Your task to perform on an android device: change the clock style Image 0: 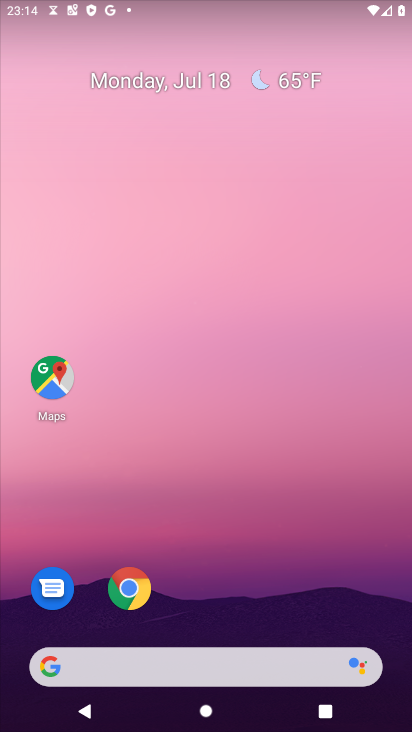
Step 0: drag from (209, 670) to (237, 201)
Your task to perform on an android device: change the clock style Image 1: 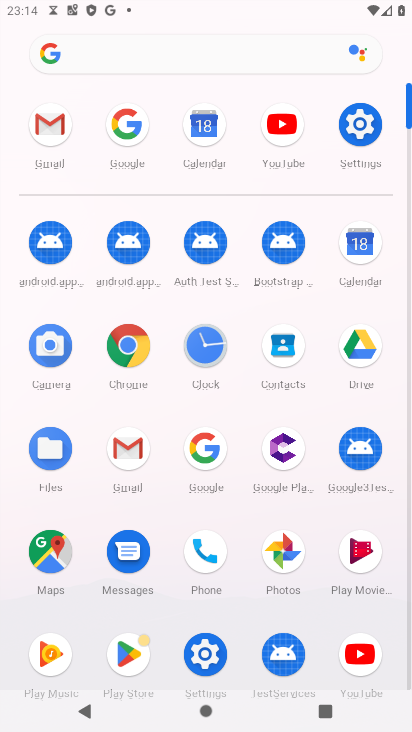
Step 1: click (205, 345)
Your task to perform on an android device: change the clock style Image 2: 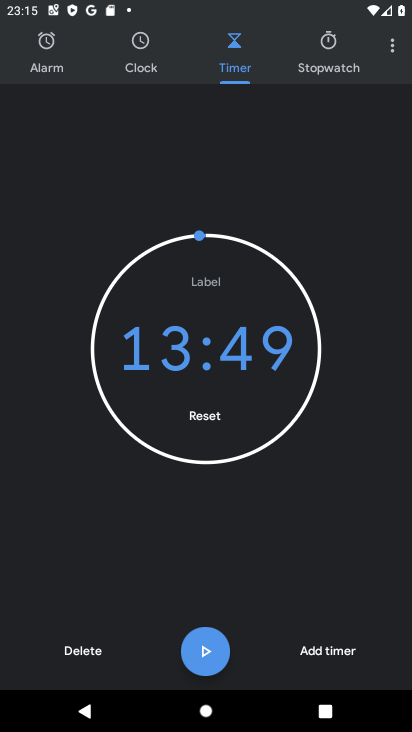
Step 2: click (393, 47)
Your task to perform on an android device: change the clock style Image 3: 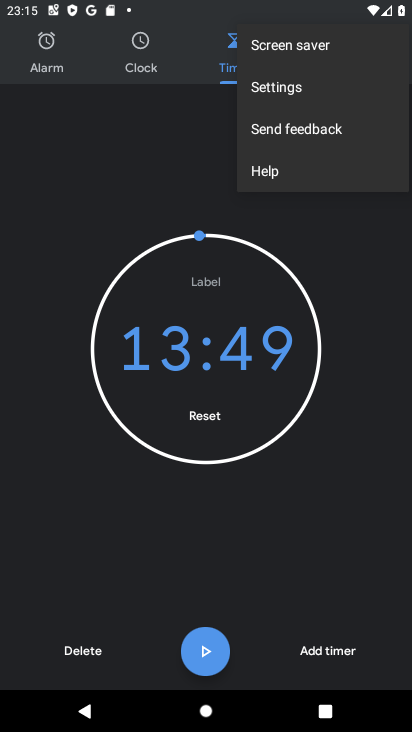
Step 3: click (297, 84)
Your task to perform on an android device: change the clock style Image 4: 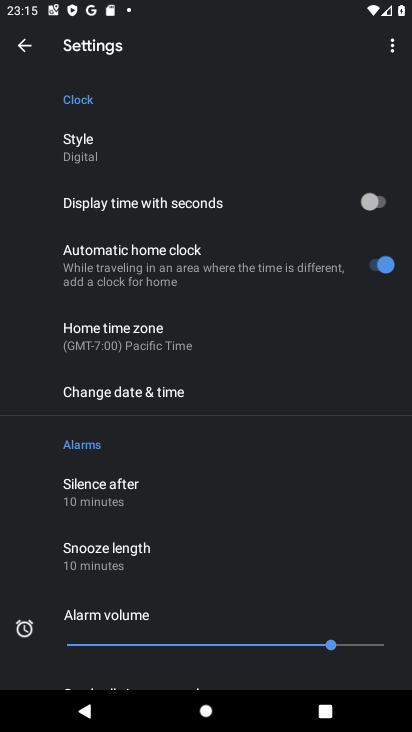
Step 4: click (105, 159)
Your task to perform on an android device: change the clock style Image 5: 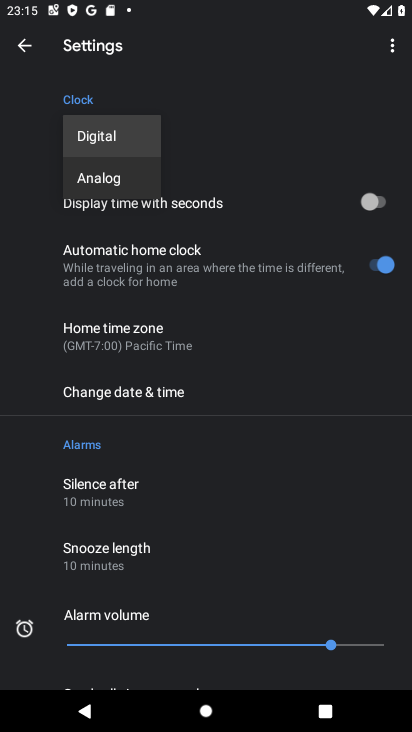
Step 5: click (115, 174)
Your task to perform on an android device: change the clock style Image 6: 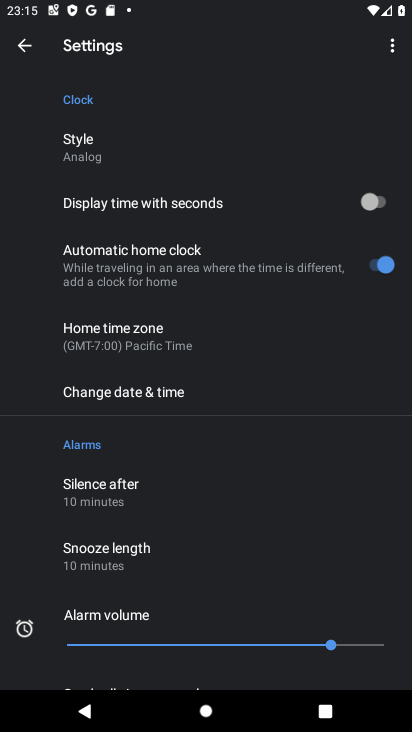
Step 6: task complete